Your task to perform on an android device: open app "Adobe Express: Graphic Design" (install if not already installed) and enter user name: "deliveries@gmail.com" and password: "regimentation" Image 0: 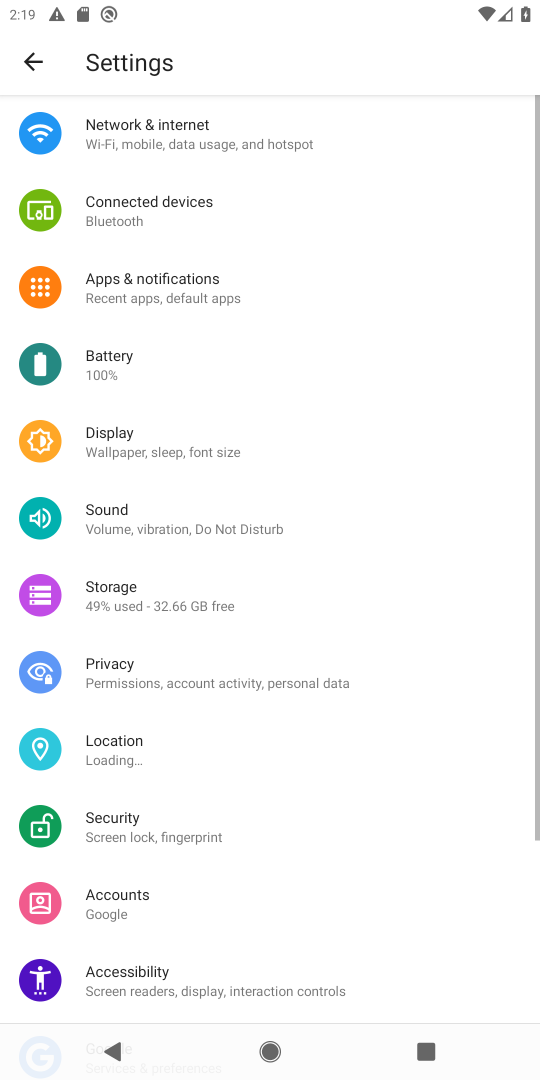
Step 0: press home button
Your task to perform on an android device: open app "Adobe Express: Graphic Design" (install if not already installed) and enter user name: "deliveries@gmail.com" and password: "regimentation" Image 1: 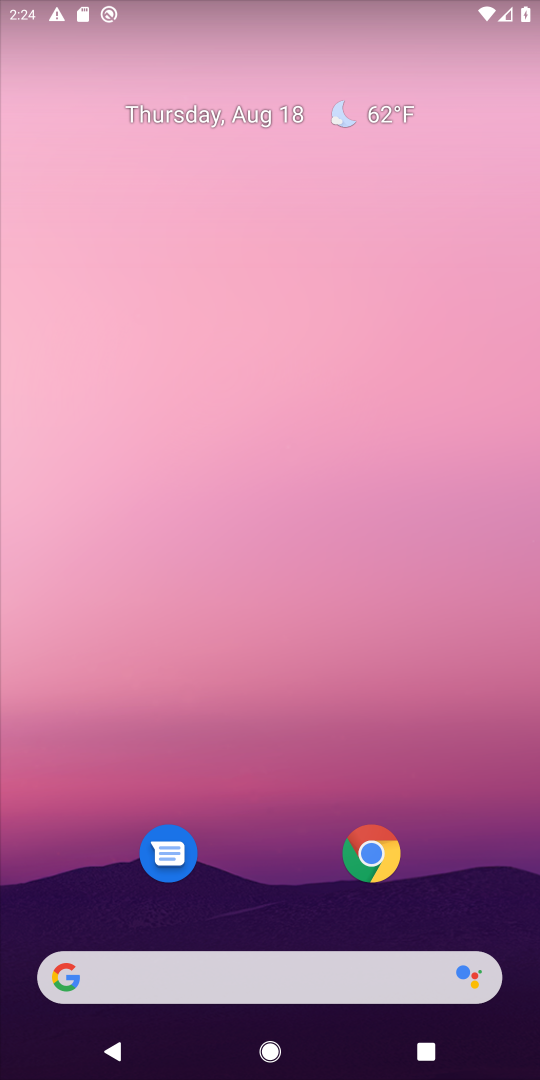
Step 1: drag from (462, 749) to (312, 101)
Your task to perform on an android device: open app "Adobe Express: Graphic Design" (install if not already installed) and enter user name: "deliveries@gmail.com" and password: "regimentation" Image 2: 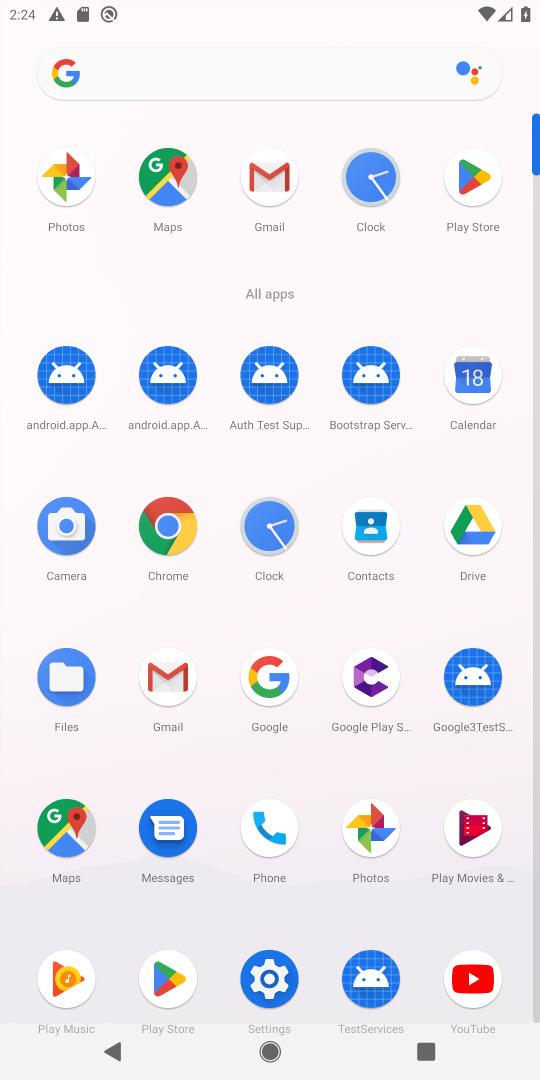
Step 2: click (457, 179)
Your task to perform on an android device: open app "Adobe Express: Graphic Design" (install if not already installed) and enter user name: "deliveries@gmail.com" and password: "regimentation" Image 3: 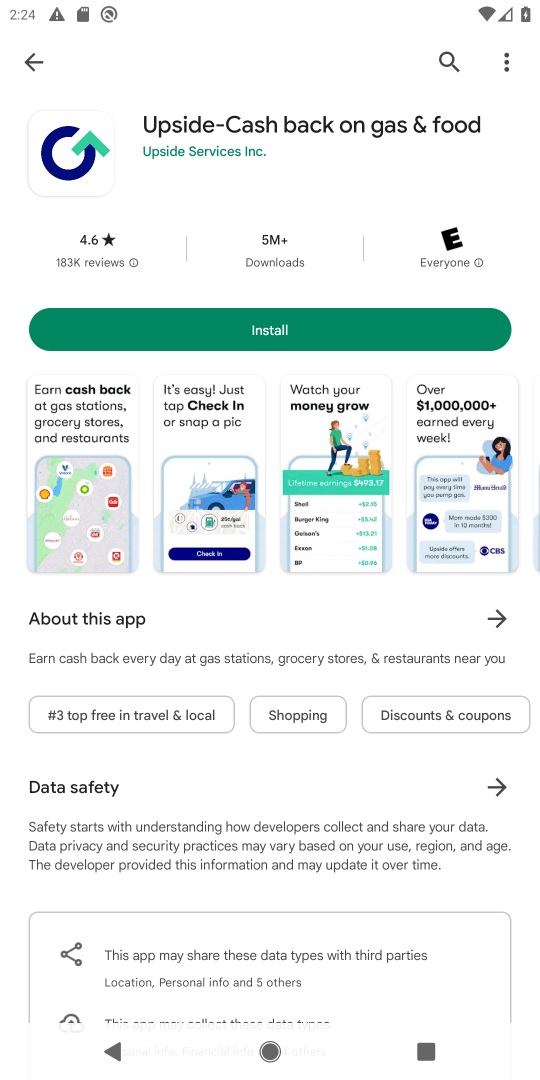
Step 3: press back button
Your task to perform on an android device: open app "Adobe Express: Graphic Design" (install if not already installed) and enter user name: "deliveries@gmail.com" and password: "regimentation" Image 4: 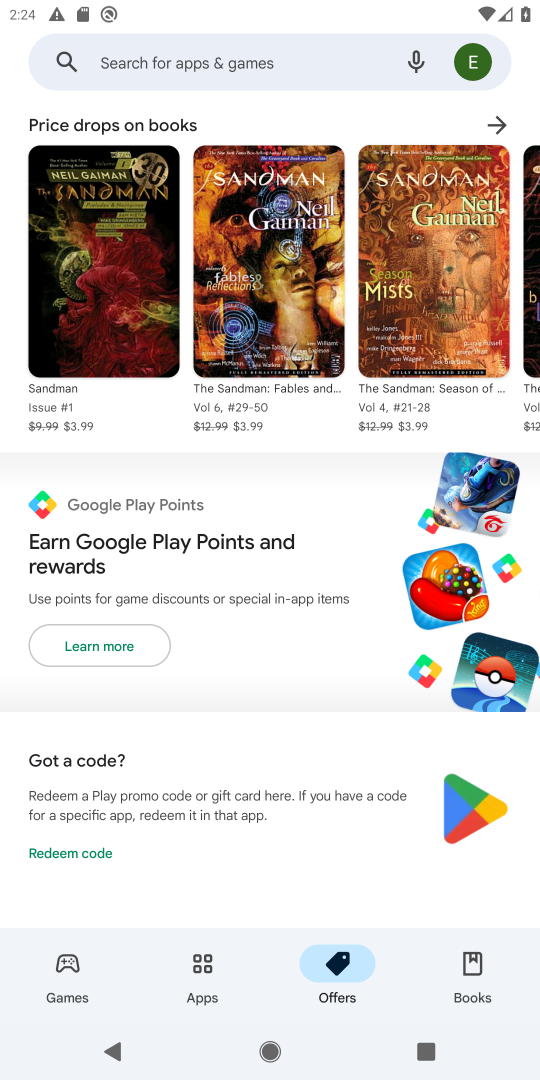
Step 4: click (289, 59)
Your task to perform on an android device: open app "Adobe Express: Graphic Design" (install if not already installed) and enter user name: "deliveries@gmail.com" and password: "regimentation" Image 5: 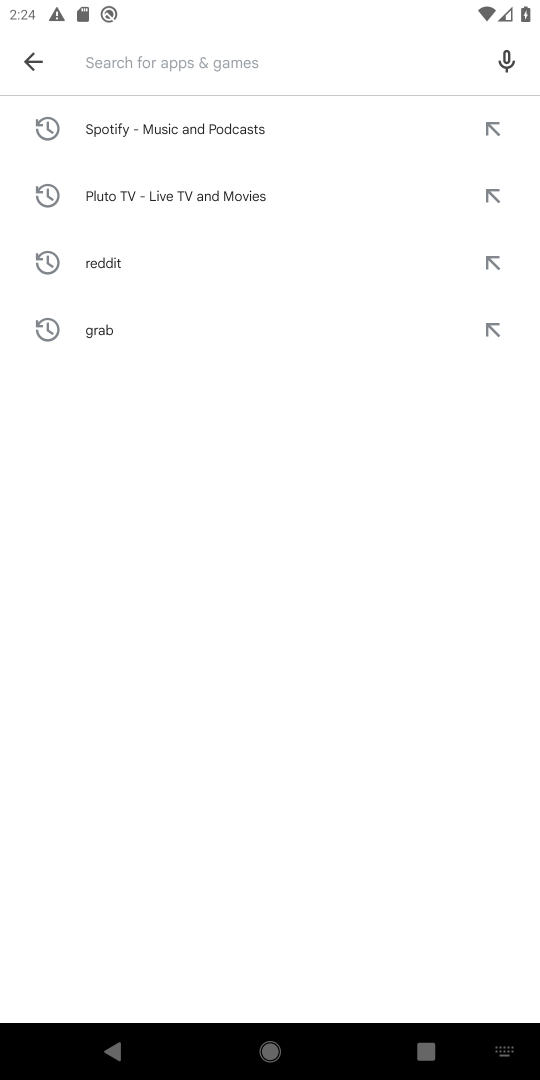
Step 5: type "Adobe Express: Graphic Design"
Your task to perform on an android device: open app "Adobe Express: Graphic Design" (install if not already installed) and enter user name: "deliveries@gmail.com" and password: "regimentation" Image 6: 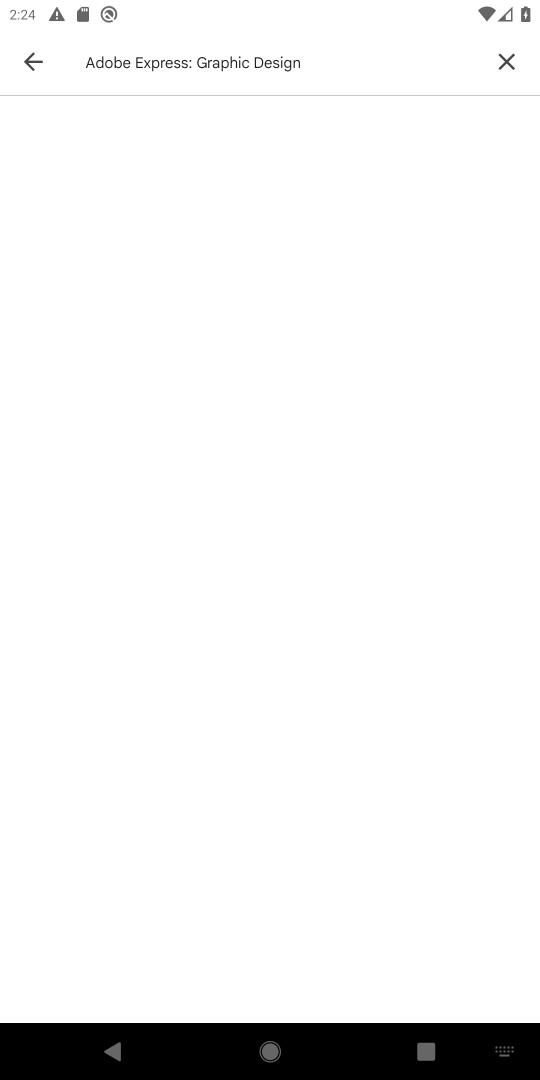
Step 6: task complete